Your task to perform on an android device: Open Google Maps Image 0: 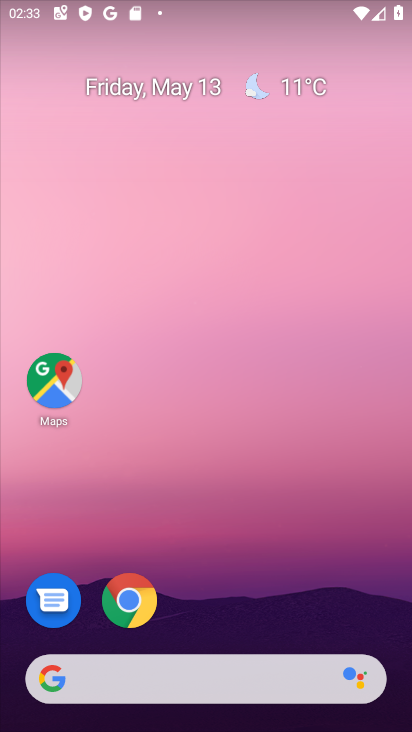
Step 0: drag from (219, 573) to (275, 160)
Your task to perform on an android device: Open Google Maps Image 1: 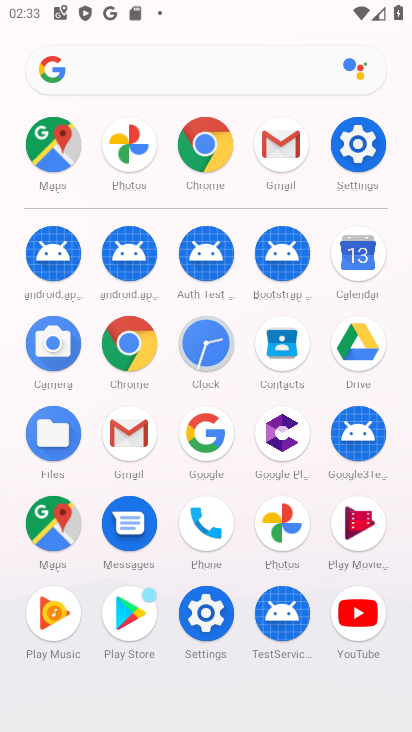
Step 1: click (40, 528)
Your task to perform on an android device: Open Google Maps Image 2: 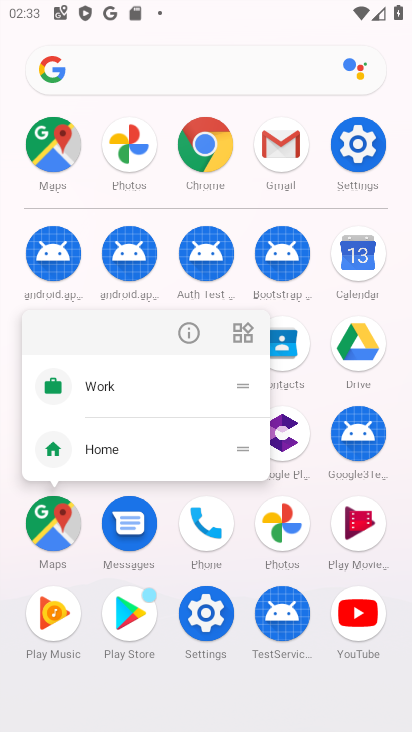
Step 2: click (180, 339)
Your task to perform on an android device: Open Google Maps Image 3: 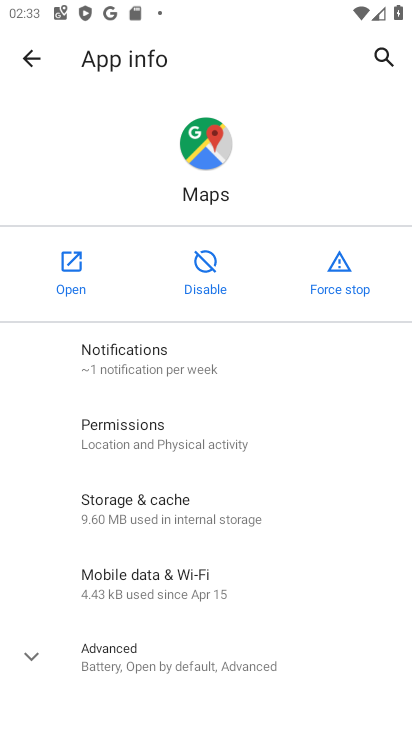
Step 3: click (62, 274)
Your task to perform on an android device: Open Google Maps Image 4: 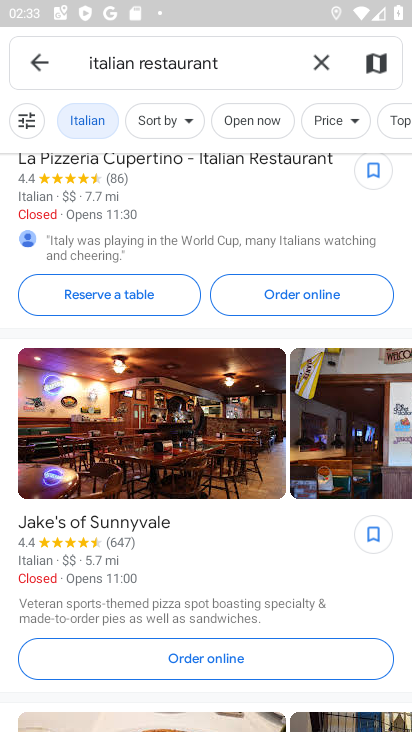
Step 4: drag from (229, 224) to (309, 537)
Your task to perform on an android device: Open Google Maps Image 5: 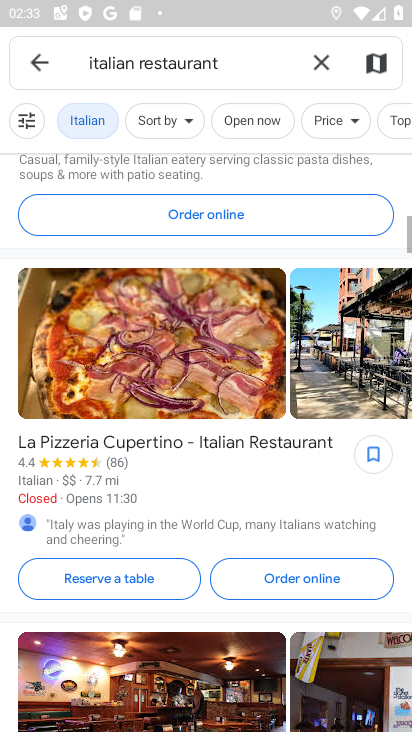
Step 5: click (41, 63)
Your task to perform on an android device: Open Google Maps Image 6: 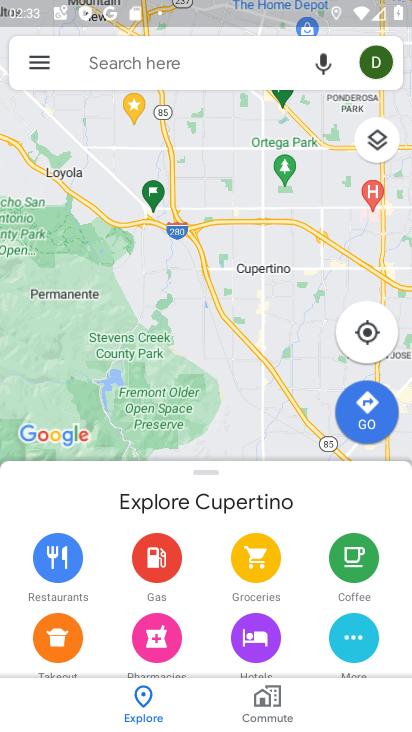
Step 6: task complete